Your task to perform on an android device: turn on javascript in the chrome app Image 0: 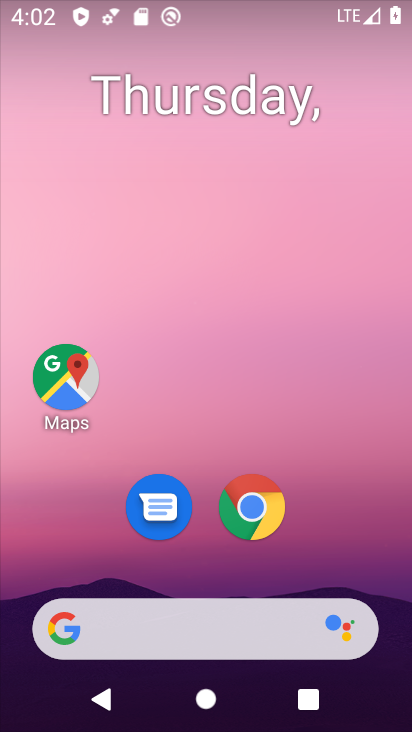
Step 0: click (225, 511)
Your task to perform on an android device: turn on javascript in the chrome app Image 1: 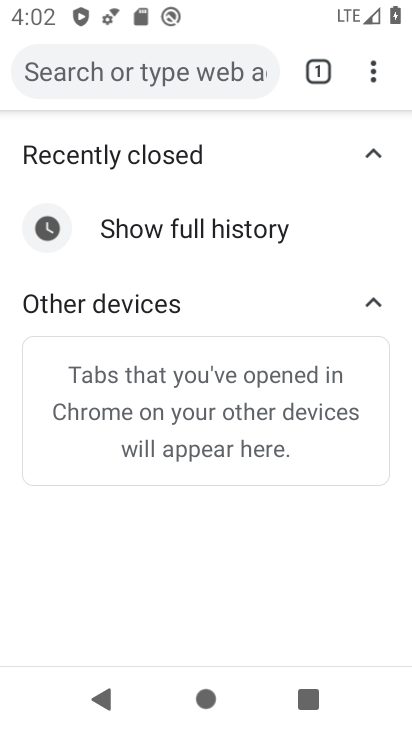
Step 1: drag from (369, 69) to (202, 510)
Your task to perform on an android device: turn on javascript in the chrome app Image 2: 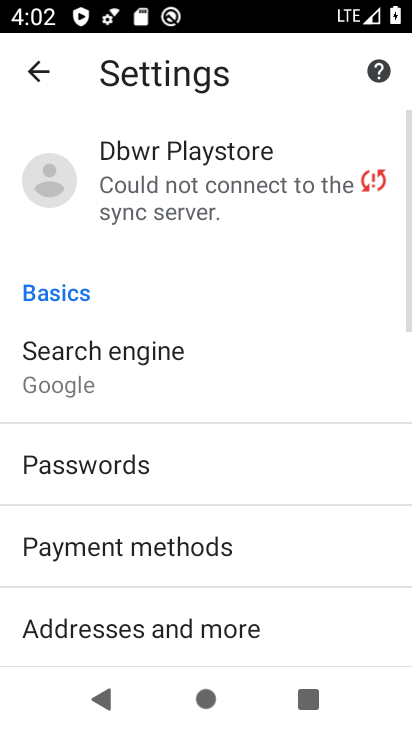
Step 2: drag from (379, 593) to (263, 280)
Your task to perform on an android device: turn on javascript in the chrome app Image 3: 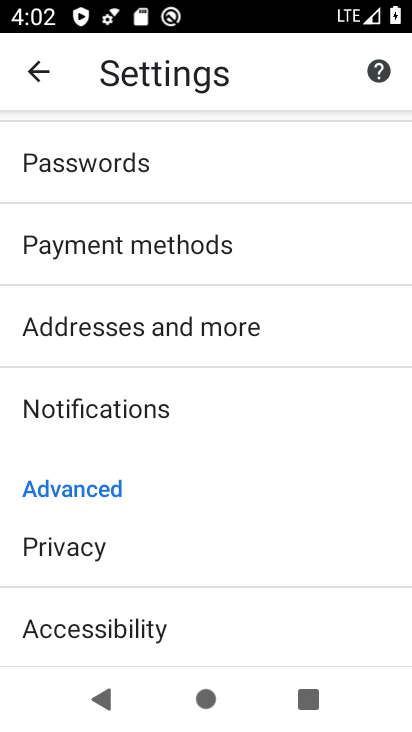
Step 3: drag from (240, 574) to (283, 231)
Your task to perform on an android device: turn on javascript in the chrome app Image 4: 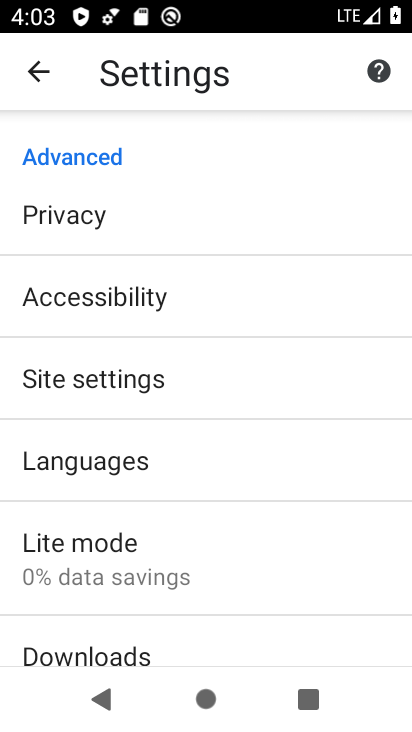
Step 4: click (118, 375)
Your task to perform on an android device: turn on javascript in the chrome app Image 5: 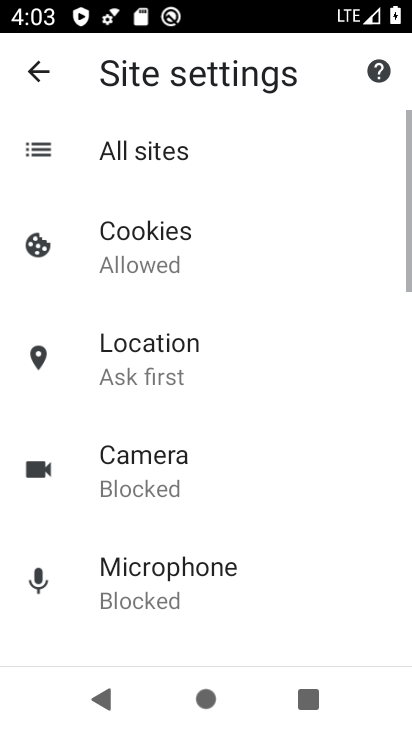
Step 5: click (202, 513)
Your task to perform on an android device: turn on javascript in the chrome app Image 6: 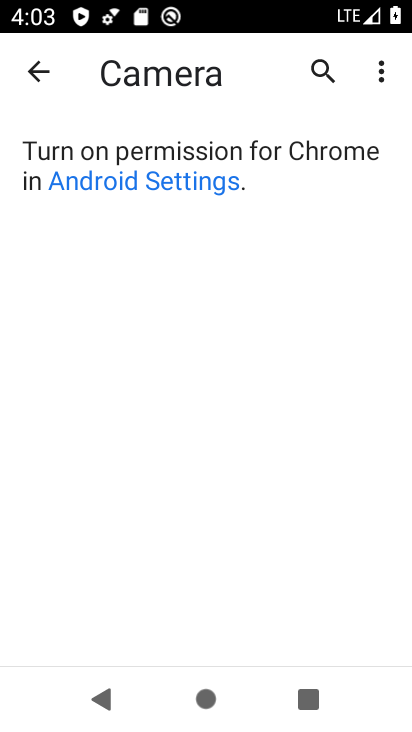
Step 6: click (41, 72)
Your task to perform on an android device: turn on javascript in the chrome app Image 7: 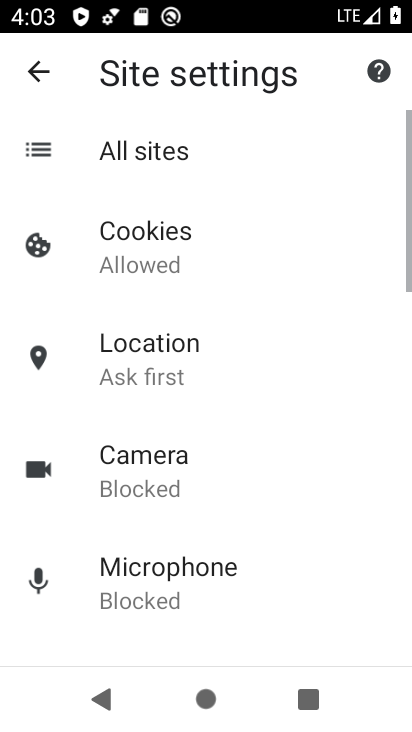
Step 7: drag from (298, 605) to (265, 189)
Your task to perform on an android device: turn on javascript in the chrome app Image 8: 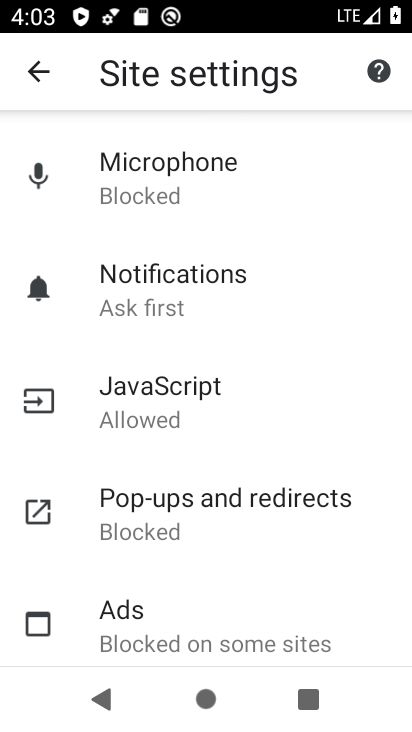
Step 8: click (170, 404)
Your task to perform on an android device: turn on javascript in the chrome app Image 9: 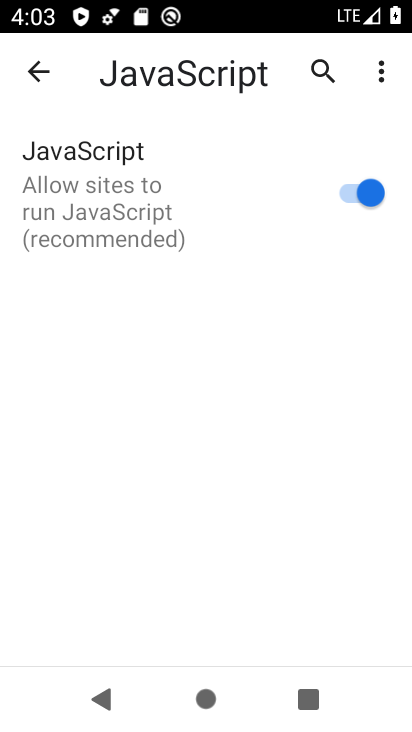
Step 9: task complete